Your task to perform on an android device: Go to Google Image 0: 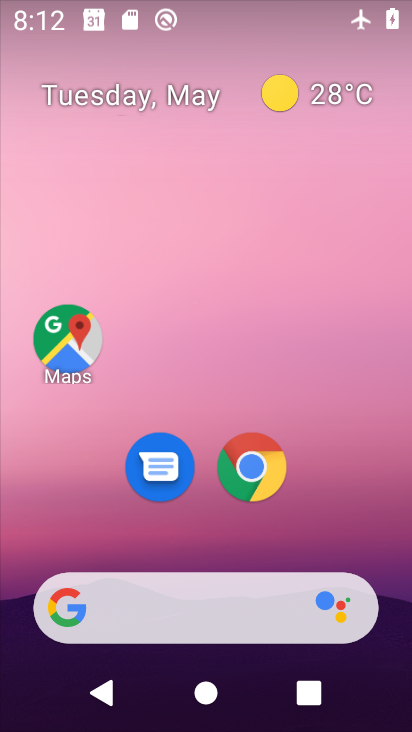
Step 0: drag from (383, 699) to (393, 244)
Your task to perform on an android device: Go to Google Image 1: 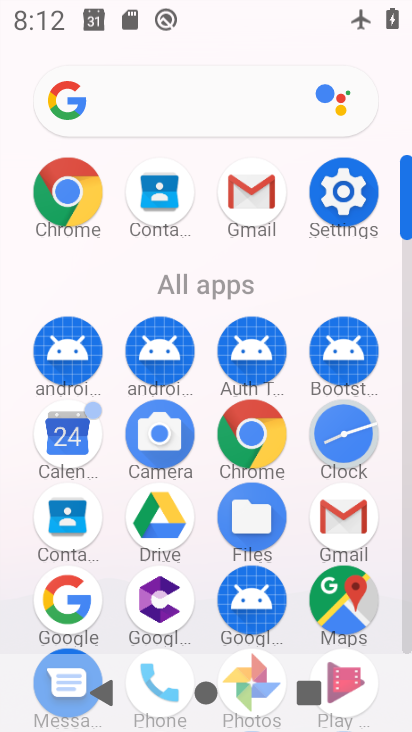
Step 1: click (93, 585)
Your task to perform on an android device: Go to Google Image 2: 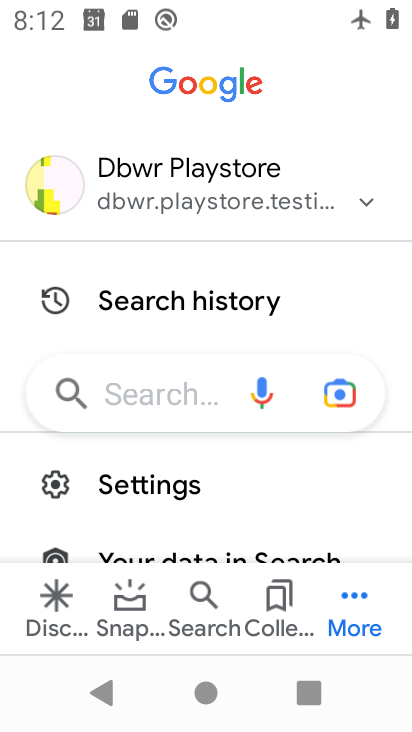
Step 2: task complete